Your task to perform on an android device: Go to Wikipedia Image 0: 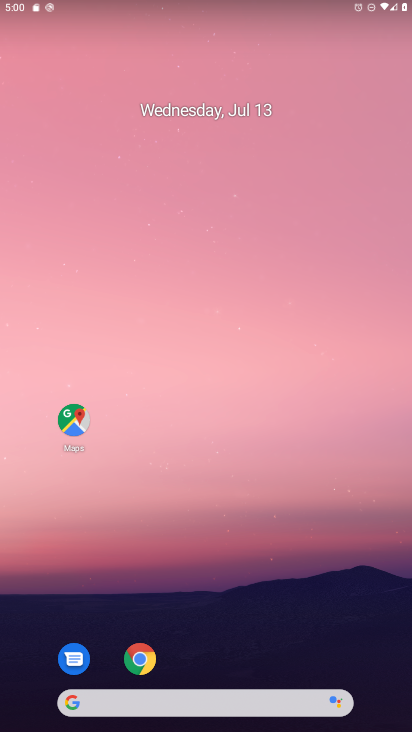
Step 0: drag from (326, 519) to (186, 90)
Your task to perform on an android device: Go to Wikipedia Image 1: 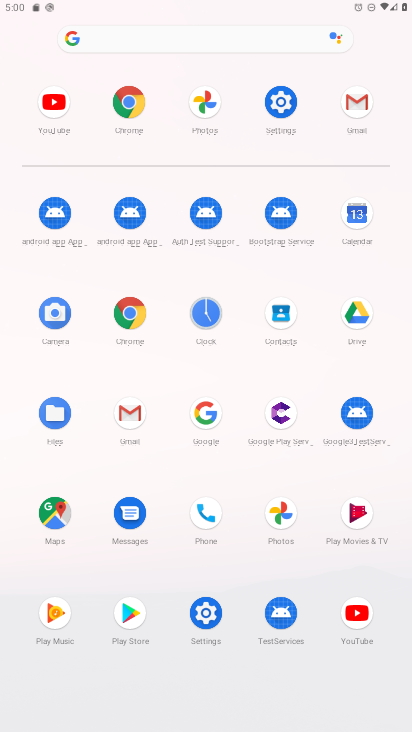
Step 1: click (130, 104)
Your task to perform on an android device: Go to Wikipedia Image 2: 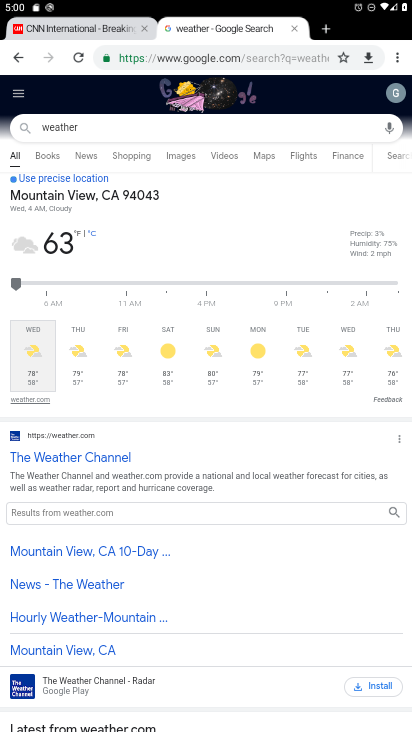
Step 2: click (249, 62)
Your task to perform on an android device: Go to Wikipedia Image 3: 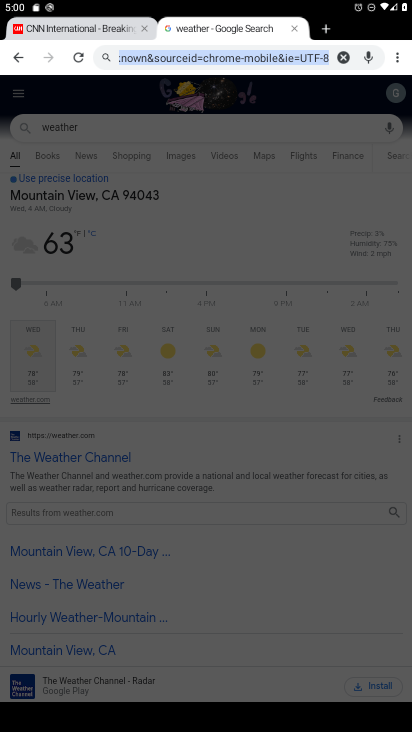
Step 3: type "wikipedia"
Your task to perform on an android device: Go to Wikipedia Image 4: 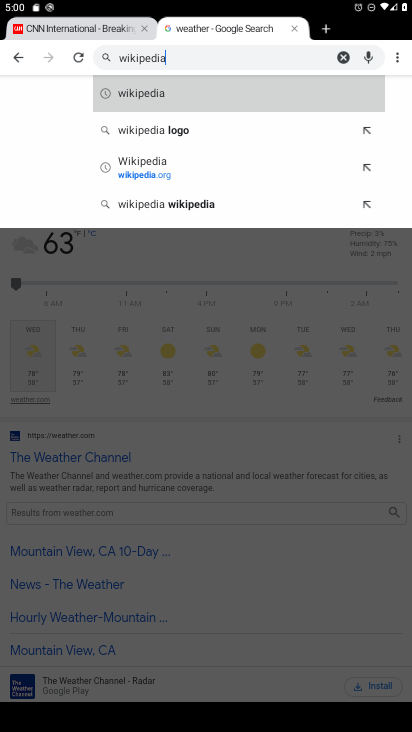
Step 4: click (144, 174)
Your task to perform on an android device: Go to Wikipedia Image 5: 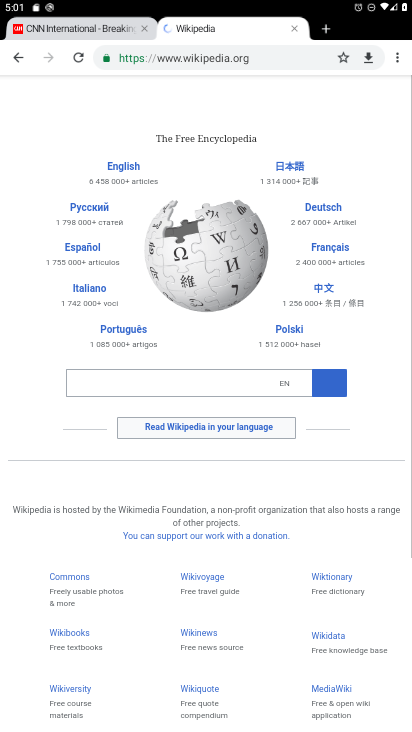
Step 5: task complete